Your task to perform on an android device: Open Yahoo.com Image 0: 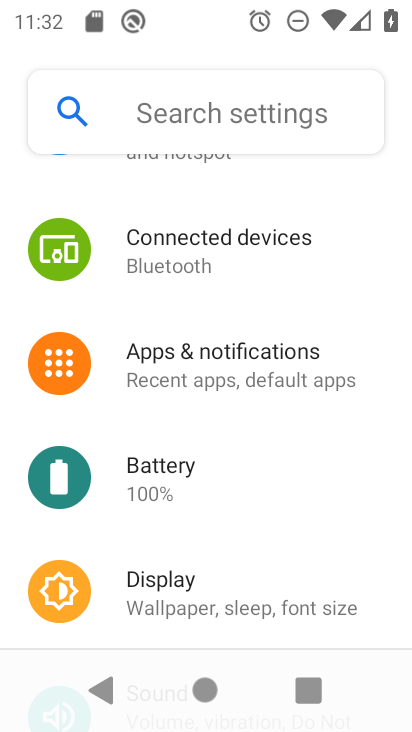
Step 0: press home button
Your task to perform on an android device: Open Yahoo.com Image 1: 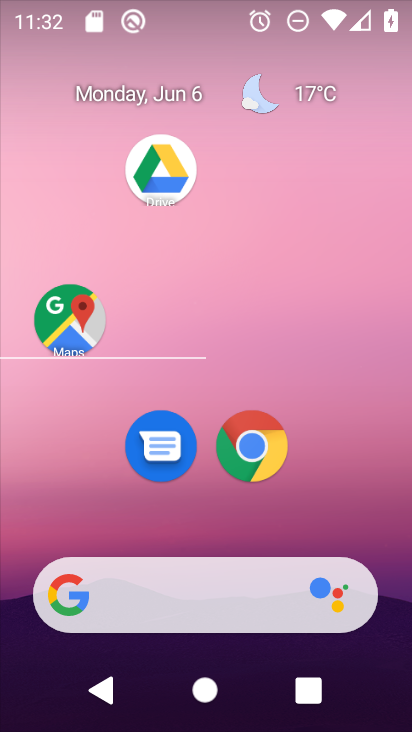
Step 1: click (258, 436)
Your task to perform on an android device: Open Yahoo.com Image 2: 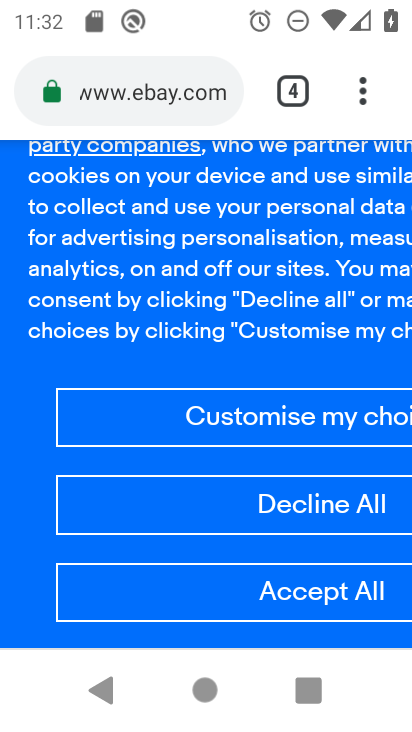
Step 2: click (294, 84)
Your task to perform on an android device: Open Yahoo.com Image 3: 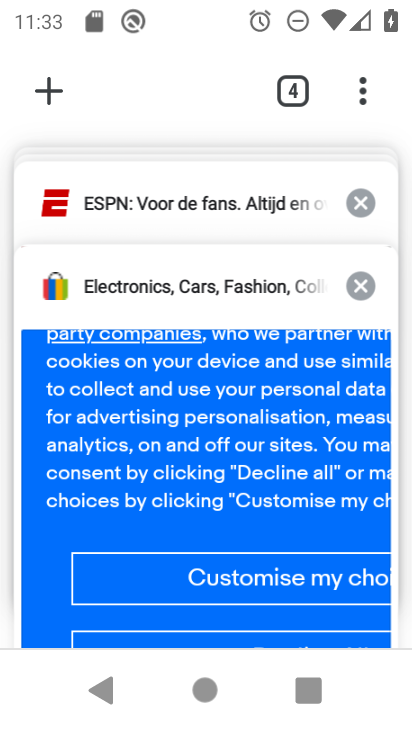
Step 3: click (53, 106)
Your task to perform on an android device: Open Yahoo.com Image 4: 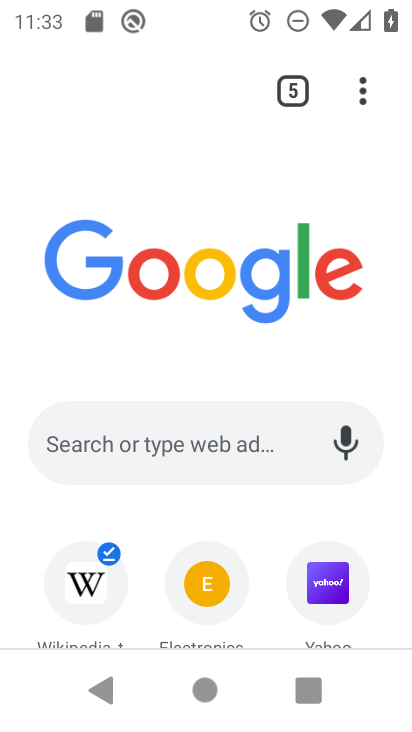
Step 4: click (332, 578)
Your task to perform on an android device: Open Yahoo.com Image 5: 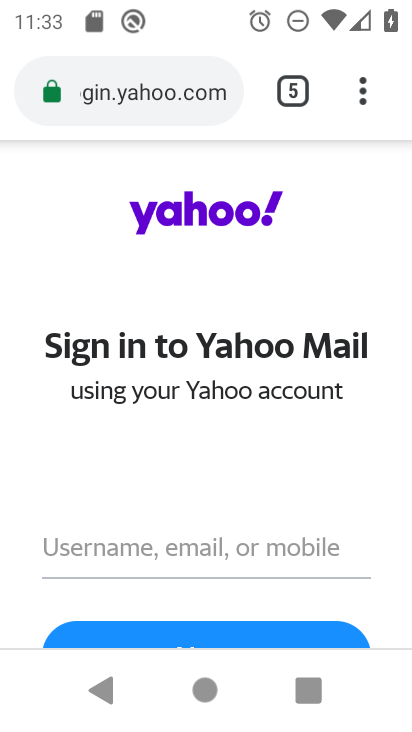
Step 5: task complete